Your task to perform on an android device: Is it going to rain tomorrow? Image 0: 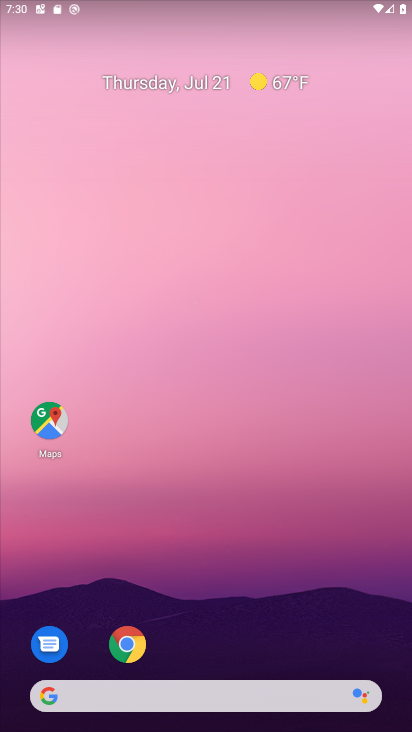
Step 0: click (270, 80)
Your task to perform on an android device: Is it going to rain tomorrow? Image 1: 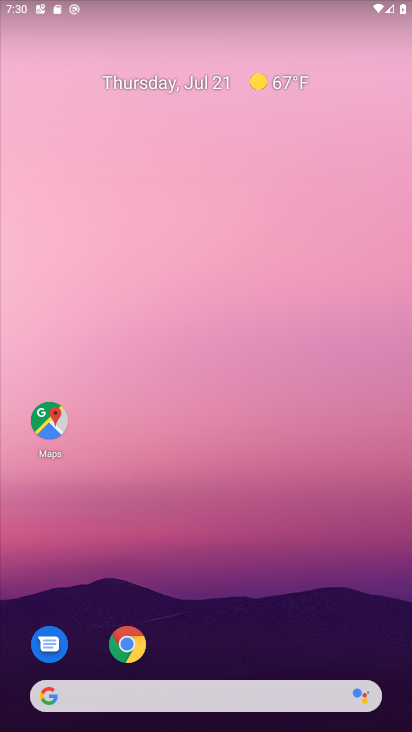
Step 1: click (199, 695)
Your task to perform on an android device: Is it going to rain tomorrow? Image 2: 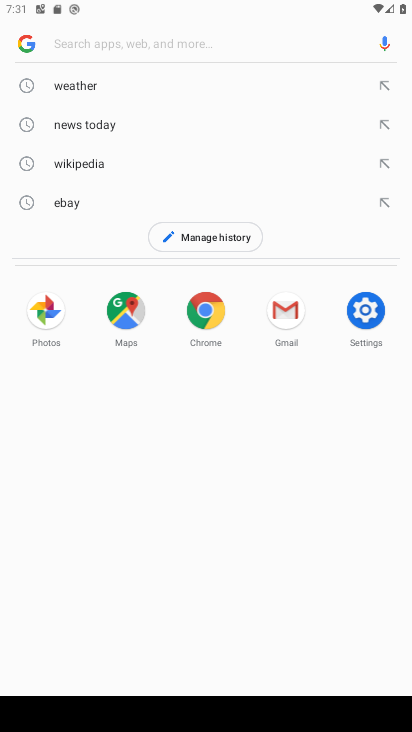
Step 2: click (78, 81)
Your task to perform on an android device: Is it going to rain tomorrow? Image 3: 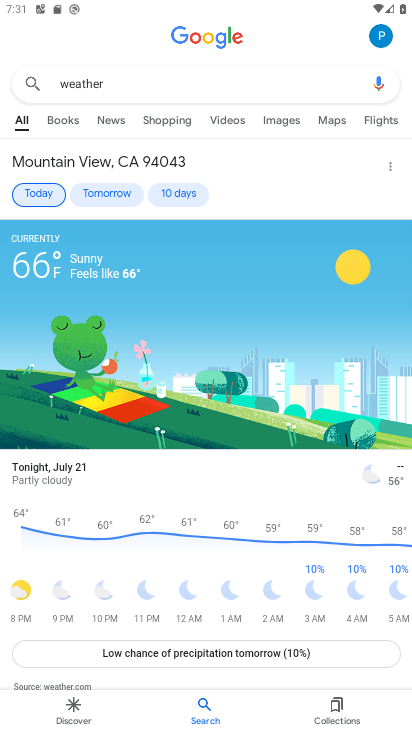
Step 3: click (104, 185)
Your task to perform on an android device: Is it going to rain tomorrow? Image 4: 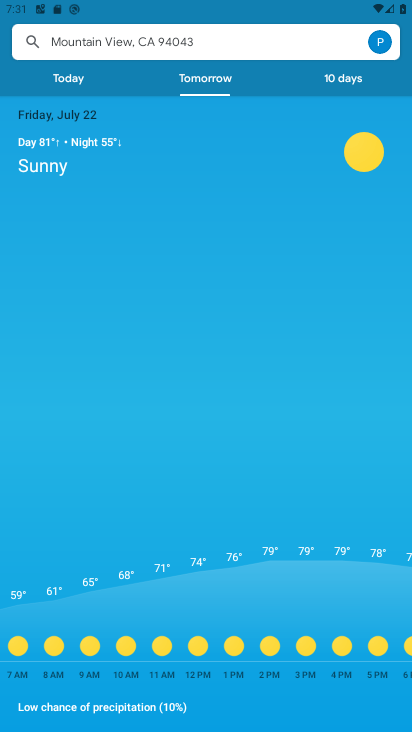
Step 4: task complete